Your task to perform on an android device: Go to Android settings Image 0: 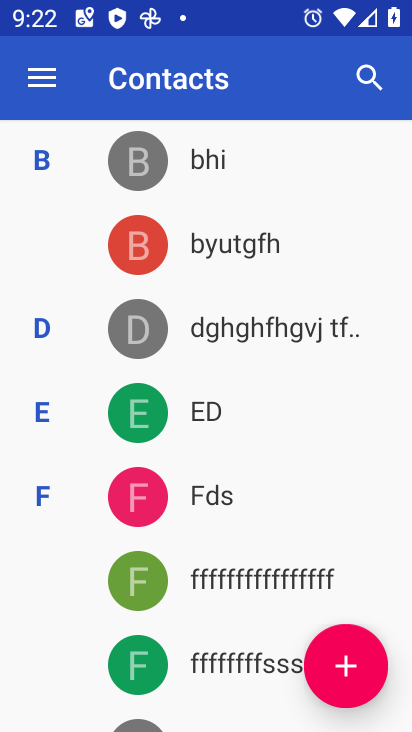
Step 0: press home button
Your task to perform on an android device: Go to Android settings Image 1: 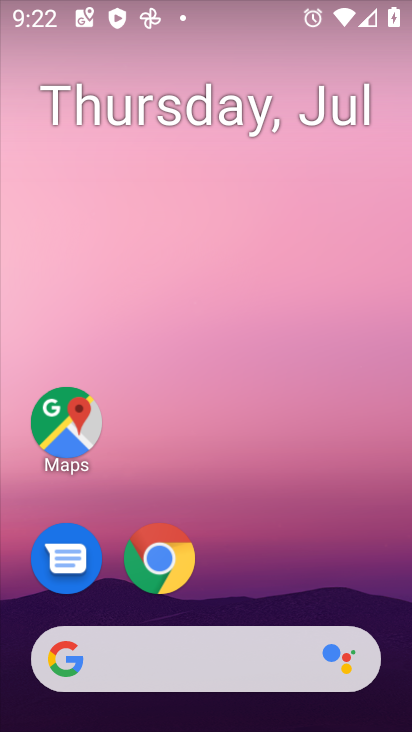
Step 1: drag from (369, 580) to (356, 83)
Your task to perform on an android device: Go to Android settings Image 2: 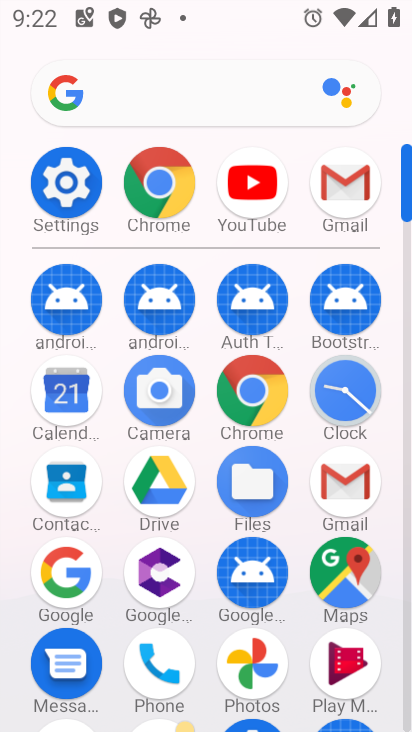
Step 2: click (69, 200)
Your task to perform on an android device: Go to Android settings Image 3: 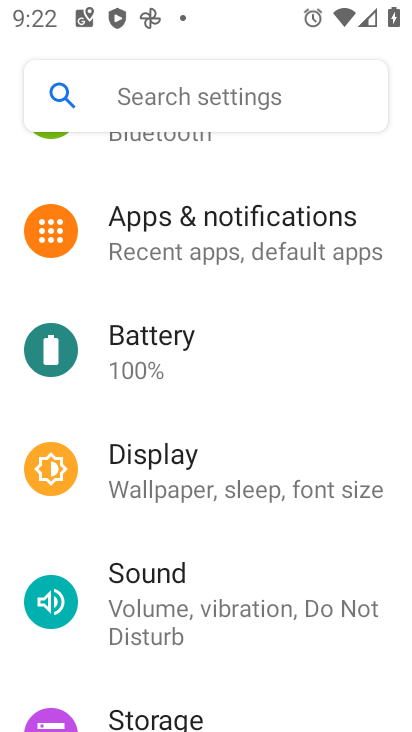
Step 3: drag from (330, 514) to (332, 361)
Your task to perform on an android device: Go to Android settings Image 4: 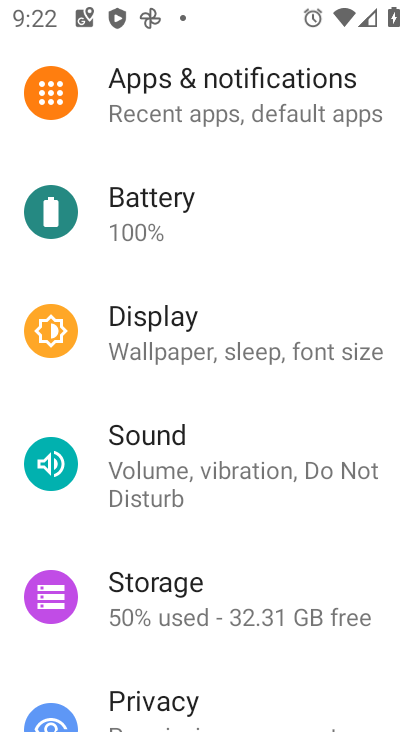
Step 4: drag from (340, 530) to (340, 431)
Your task to perform on an android device: Go to Android settings Image 5: 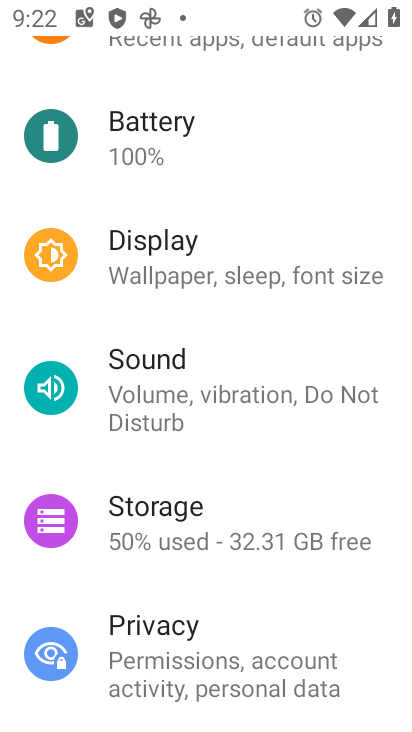
Step 5: drag from (332, 558) to (330, 466)
Your task to perform on an android device: Go to Android settings Image 6: 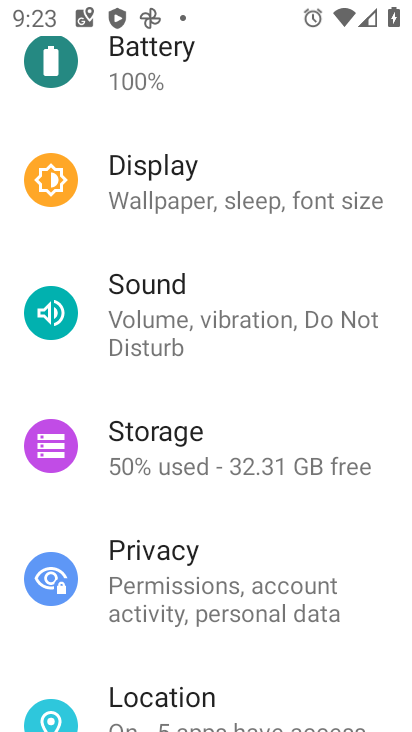
Step 6: drag from (338, 537) to (337, 441)
Your task to perform on an android device: Go to Android settings Image 7: 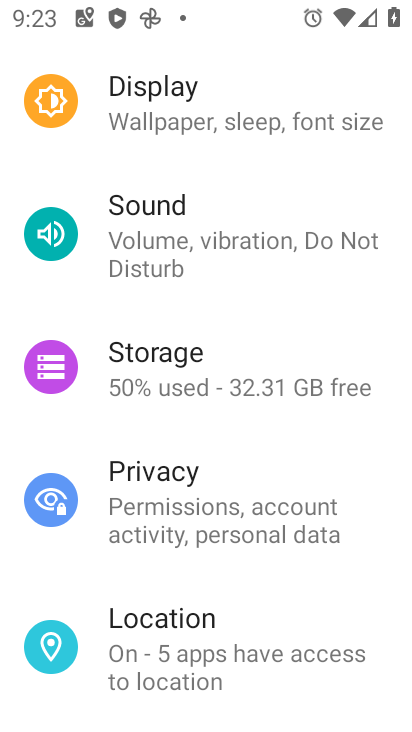
Step 7: drag from (342, 576) to (342, 482)
Your task to perform on an android device: Go to Android settings Image 8: 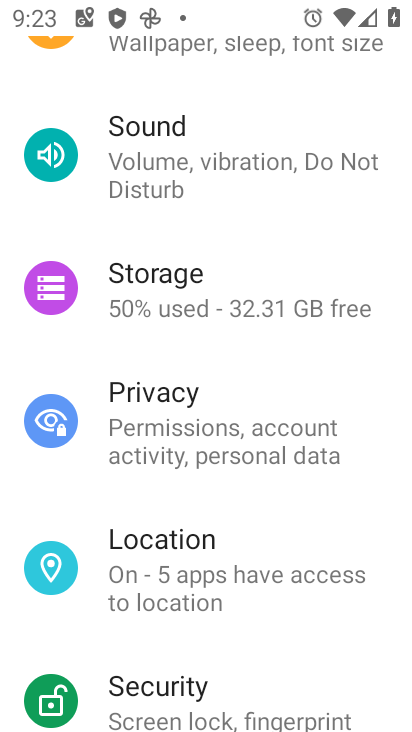
Step 8: drag from (340, 601) to (344, 481)
Your task to perform on an android device: Go to Android settings Image 9: 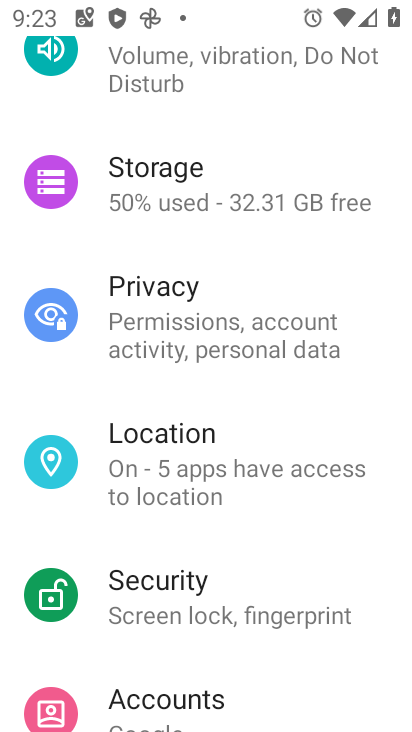
Step 9: drag from (331, 564) to (331, 482)
Your task to perform on an android device: Go to Android settings Image 10: 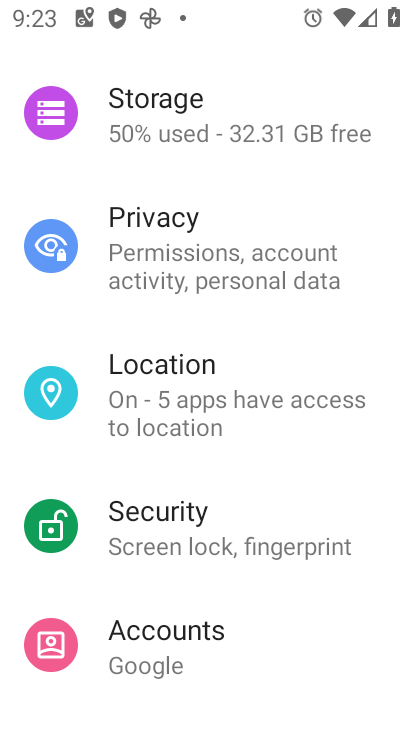
Step 10: drag from (331, 593) to (331, 494)
Your task to perform on an android device: Go to Android settings Image 11: 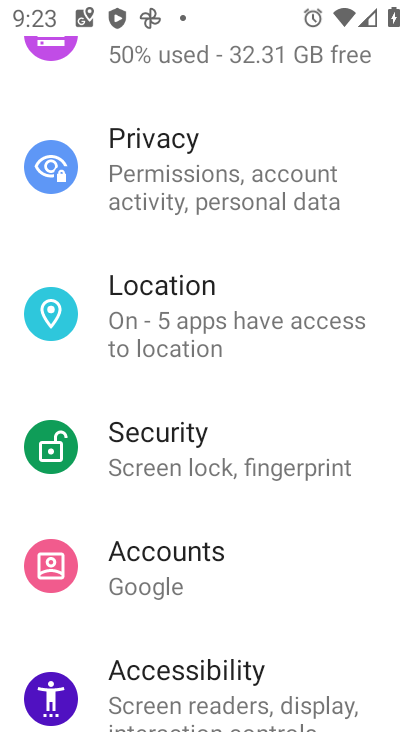
Step 11: drag from (330, 568) to (330, 485)
Your task to perform on an android device: Go to Android settings Image 12: 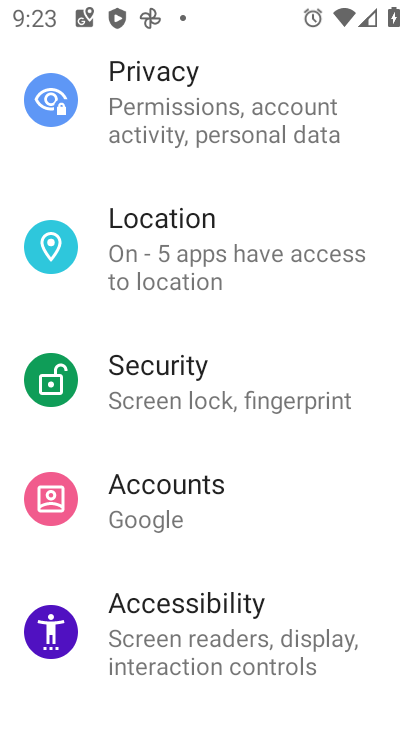
Step 12: drag from (328, 564) to (334, 471)
Your task to perform on an android device: Go to Android settings Image 13: 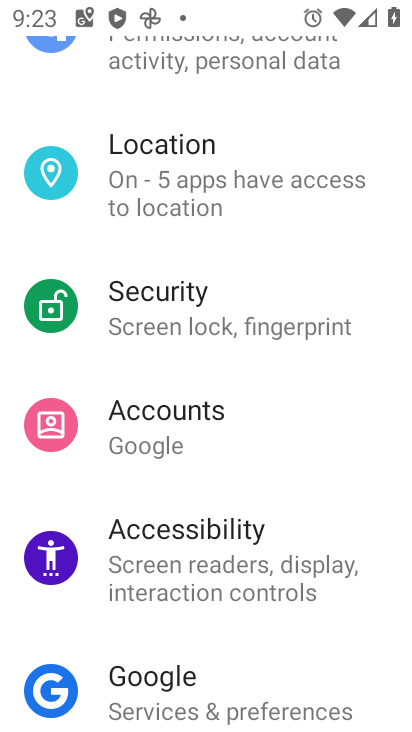
Step 13: drag from (342, 561) to (343, 456)
Your task to perform on an android device: Go to Android settings Image 14: 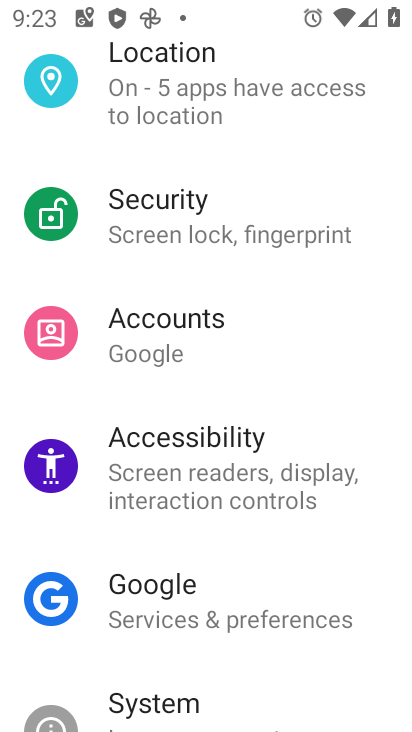
Step 14: drag from (336, 548) to (341, 302)
Your task to perform on an android device: Go to Android settings Image 15: 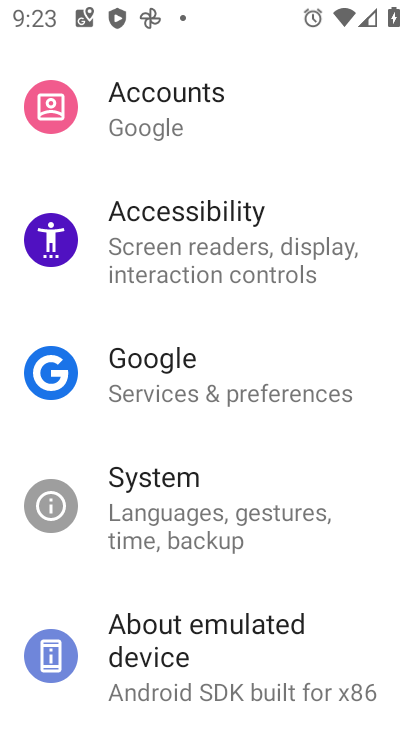
Step 15: click (330, 513)
Your task to perform on an android device: Go to Android settings Image 16: 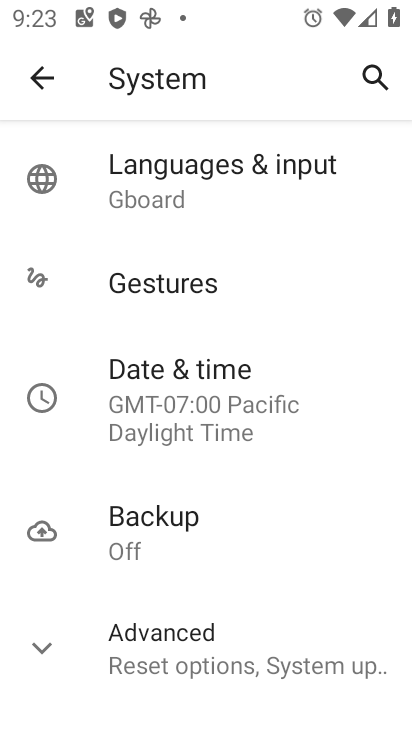
Step 16: click (329, 633)
Your task to perform on an android device: Go to Android settings Image 17: 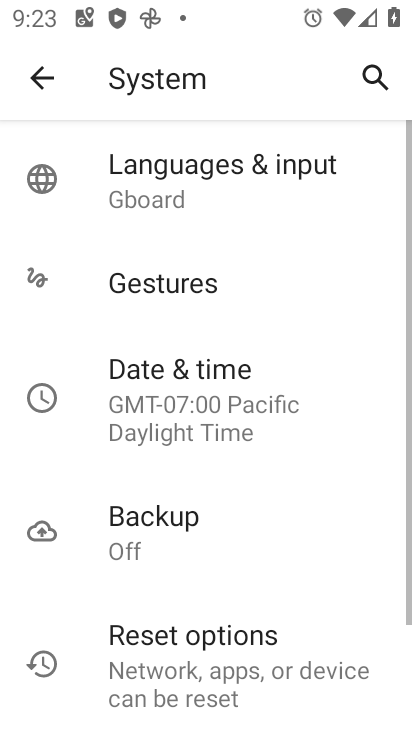
Step 17: task complete